Your task to perform on an android device: turn off wifi Image 0: 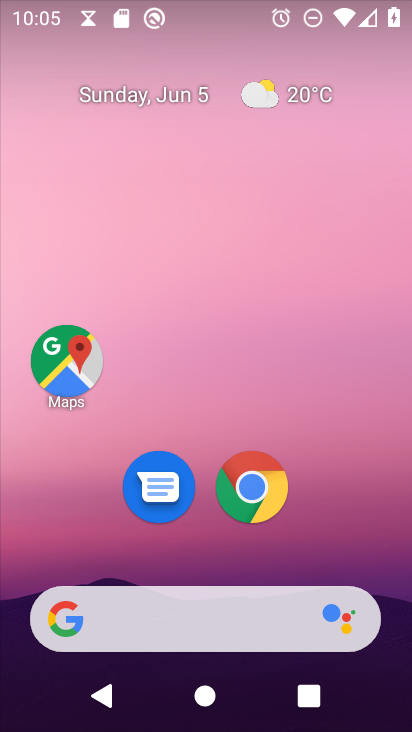
Step 0: drag from (257, 538) to (257, 116)
Your task to perform on an android device: turn off wifi Image 1: 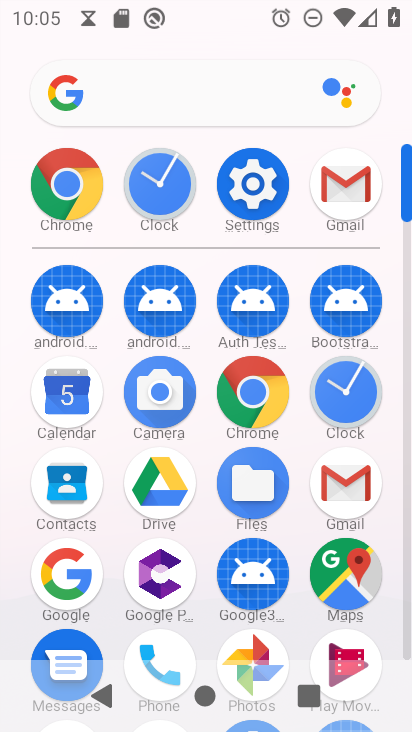
Step 1: click (247, 169)
Your task to perform on an android device: turn off wifi Image 2: 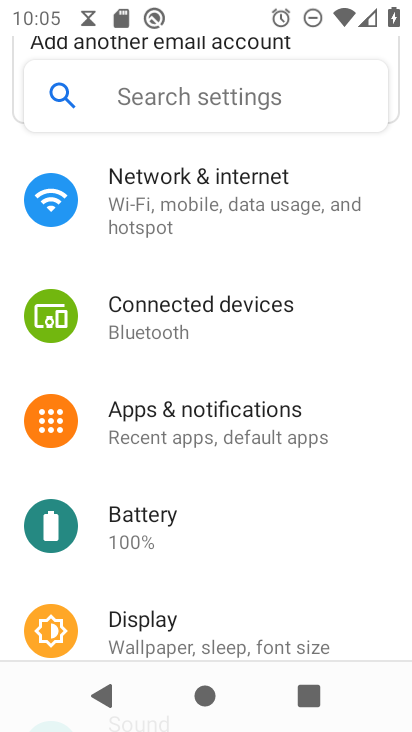
Step 2: click (192, 186)
Your task to perform on an android device: turn off wifi Image 3: 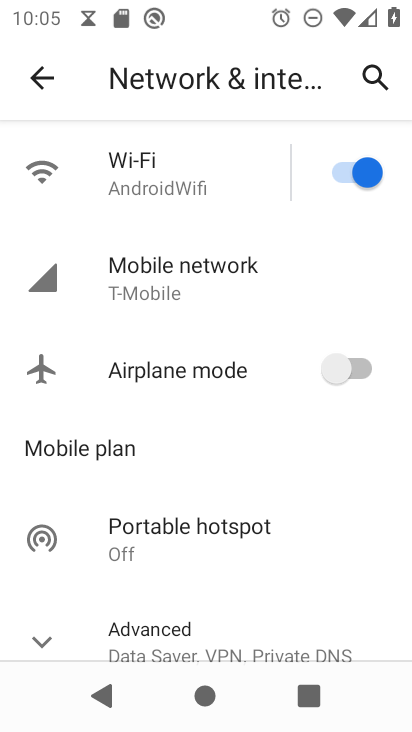
Step 3: click (336, 169)
Your task to perform on an android device: turn off wifi Image 4: 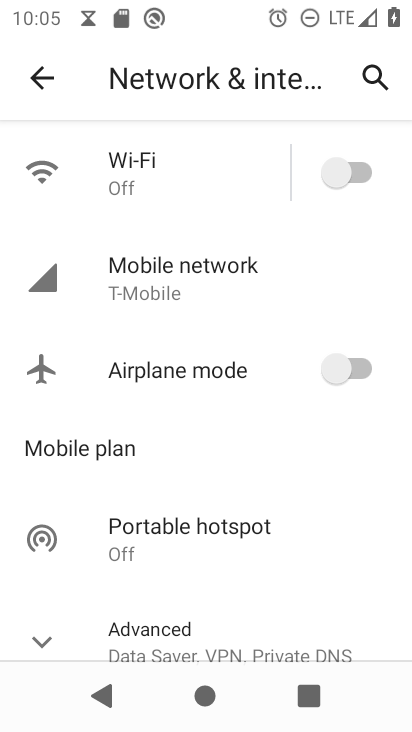
Step 4: task complete